Your task to perform on an android device: turn on airplane mode Image 0: 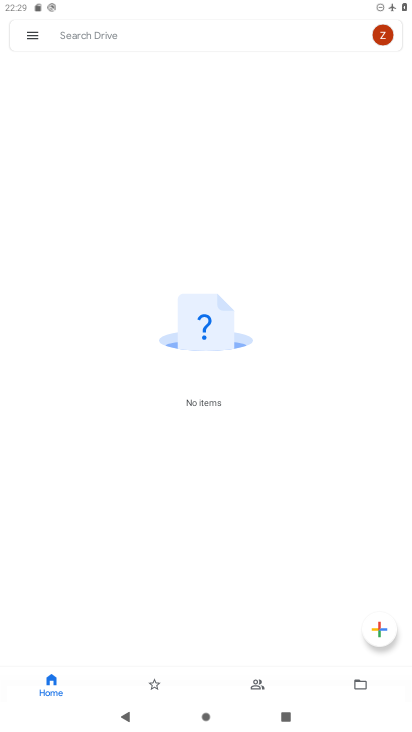
Step 0: press home button
Your task to perform on an android device: turn on airplane mode Image 1: 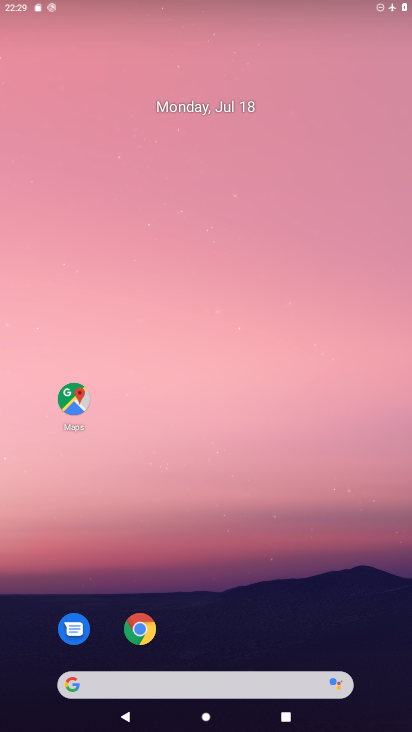
Step 1: drag from (303, 575) to (177, 101)
Your task to perform on an android device: turn on airplane mode Image 2: 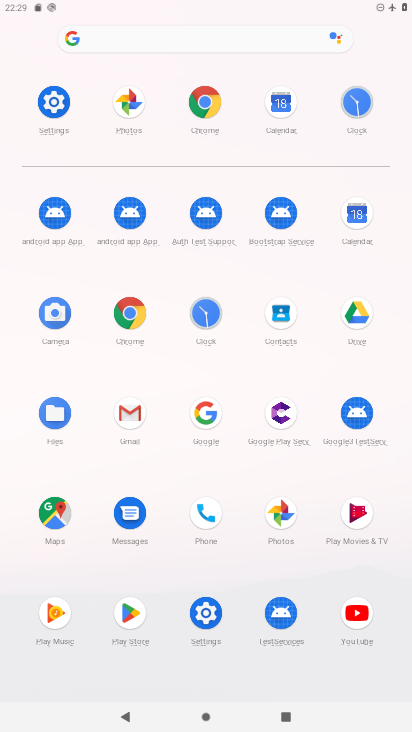
Step 2: click (48, 102)
Your task to perform on an android device: turn on airplane mode Image 3: 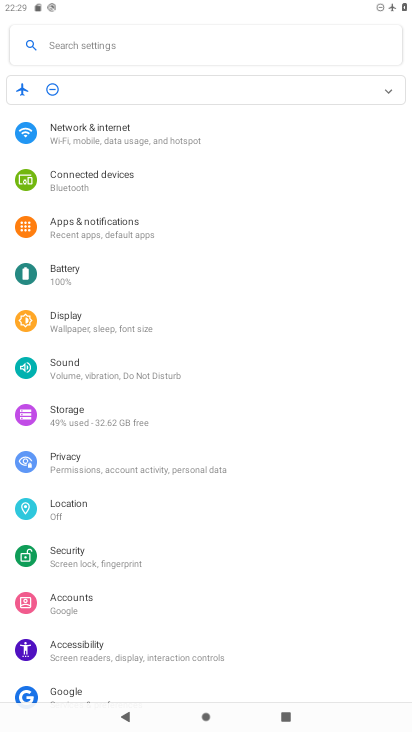
Step 3: click (104, 139)
Your task to perform on an android device: turn on airplane mode Image 4: 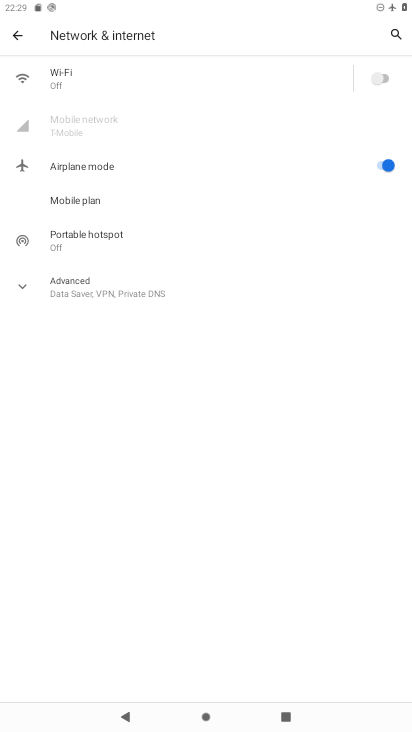
Step 4: task complete